Your task to perform on an android device: turn on the 24-hour format for clock Image 0: 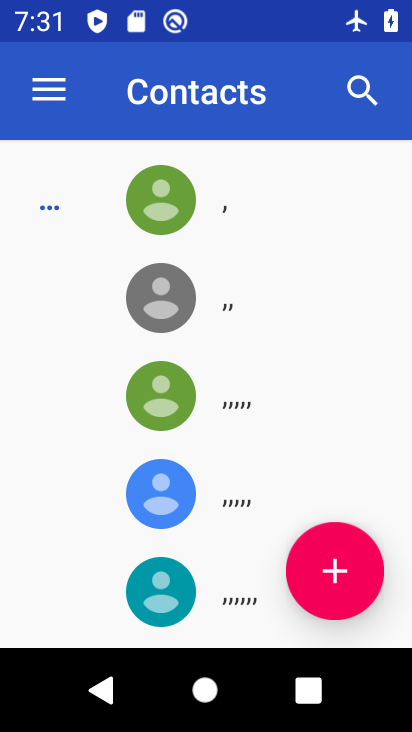
Step 0: press home button
Your task to perform on an android device: turn on the 24-hour format for clock Image 1: 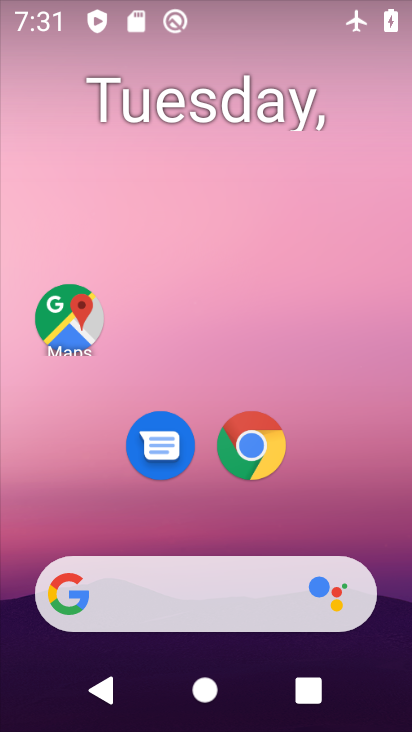
Step 1: drag from (198, 528) to (190, 0)
Your task to perform on an android device: turn on the 24-hour format for clock Image 2: 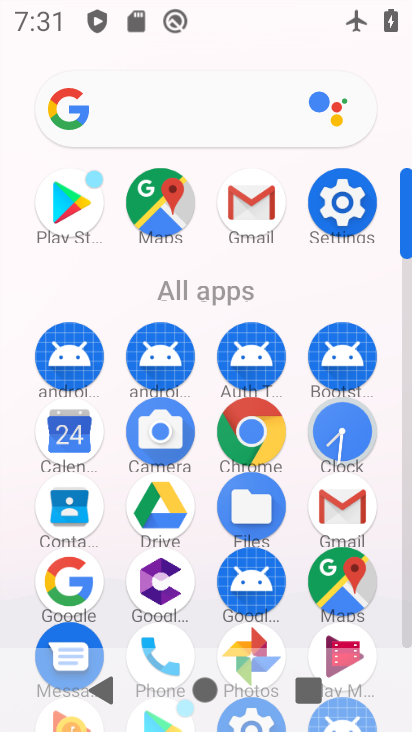
Step 2: click (374, 436)
Your task to perform on an android device: turn on the 24-hour format for clock Image 3: 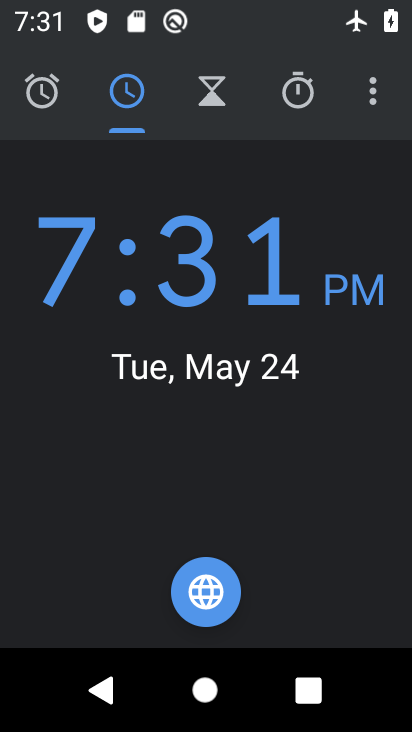
Step 3: click (376, 92)
Your task to perform on an android device: turn on the 24-hour format for clock Image 4: 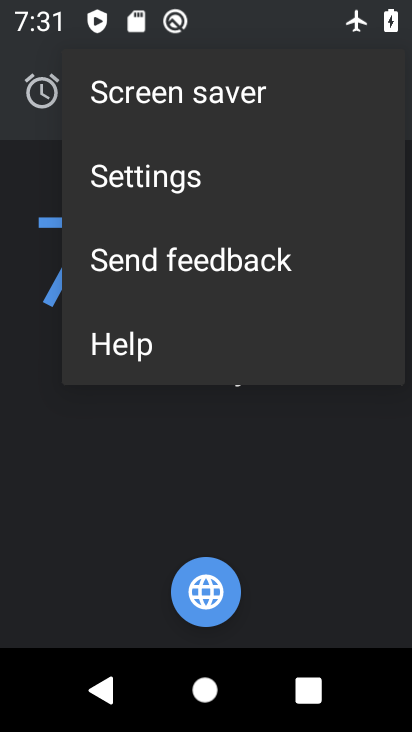
Step 4: click (163, 176)
Your task to perform on an android device: turn on the 24-hour format for clock Image 5: 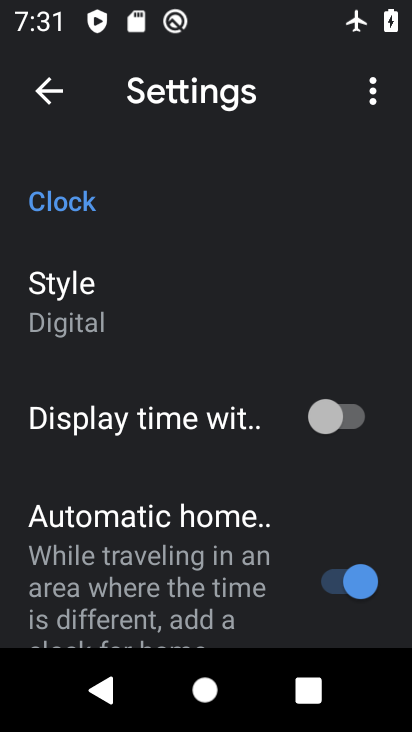
Step 5: drag from (199, 613) to (188, 301)
Your task to perform on an android device: turn on the 24-hour format for clock Image 6: 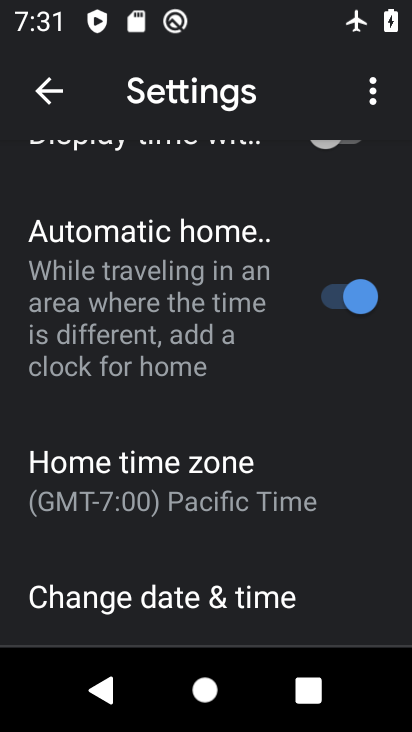
Step 6: click (191, 595)
Your task to perform on an android device: turn on the 24-hour format for clock Image 7: 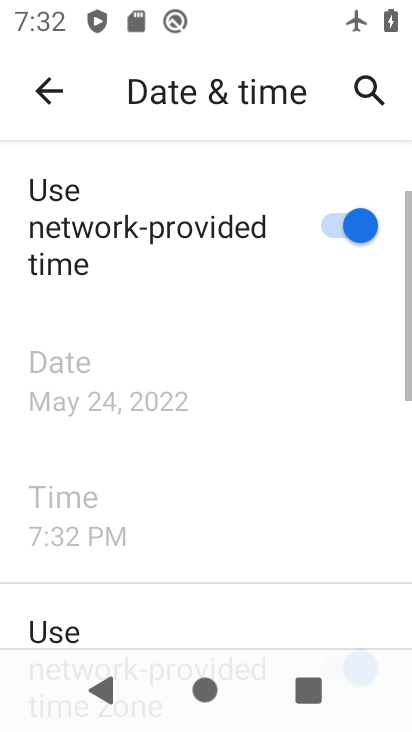
Step 7: drag from (161, 611) to (160, 202)
Your task to perform on an android device: turn on the 24-hour format for clock Image 8: 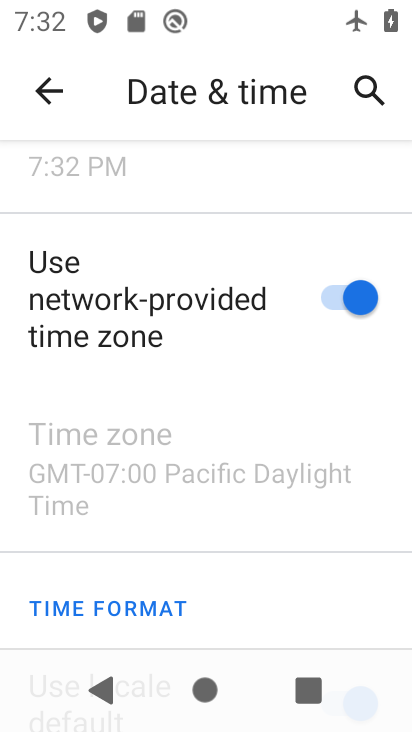
Step 8: drag from (195, 555) to (195, 212)
Your task to perform on an android device: turn on the 24-hour format for clock Image 9: 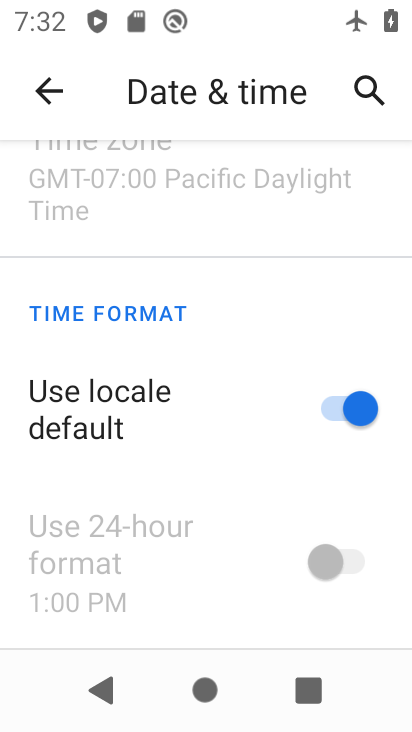
Step 9: click (327, 409)
Your task to perform on an android device: turn on the 24-hour format for clock Image 10: 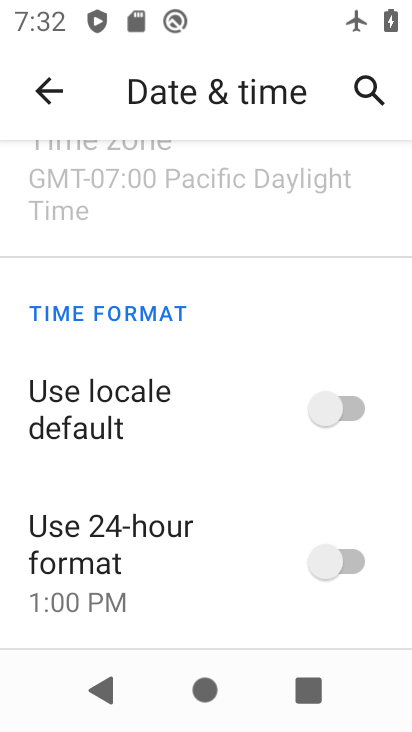
Step 10: click (357, 564)
Your task to perform on an android device: turn on the 24-hour format for clock Image 11: 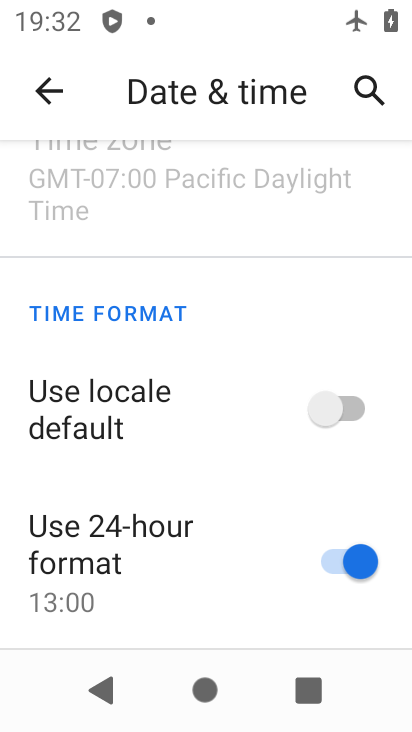
Step 11: task complete